Your task to perform on an android device: manage bookmarks in the chrome app Image 0: 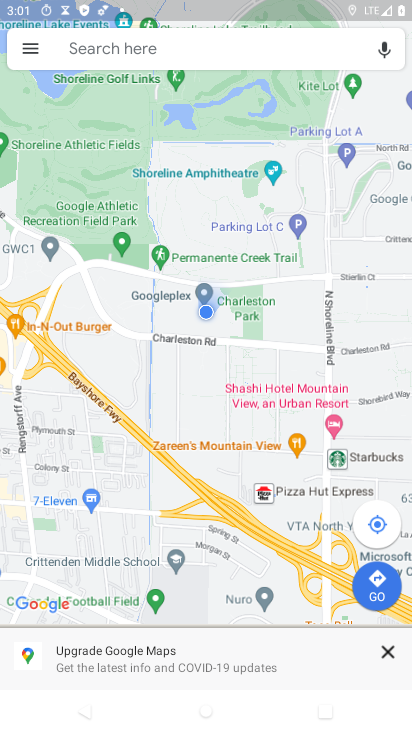
Step 0: press home button
Your task to perform on an android device: manage bookmarks in the chrome app Image 1: 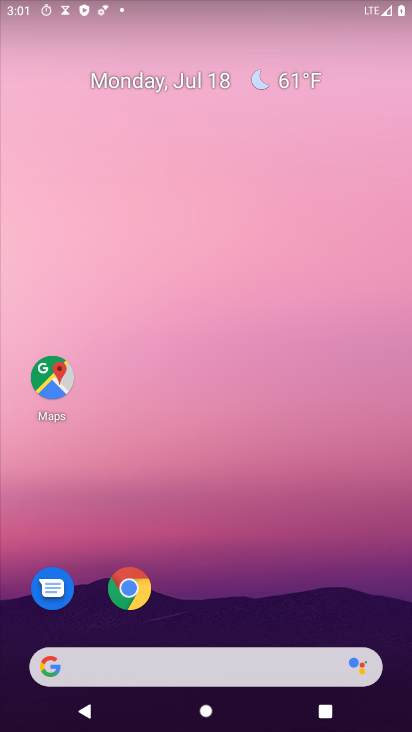
Step 1: drag from (306, 613) to (228, 70)
Your task to perform on an android device: manage bookmarks in the chrome app Image 2: 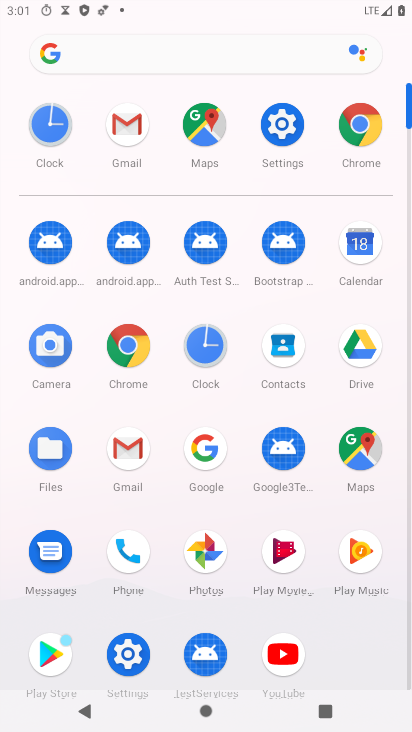
Step 2: click (355, 137)
Your task to perform on an android device: manage bookmarks in the chrome app Image 3: 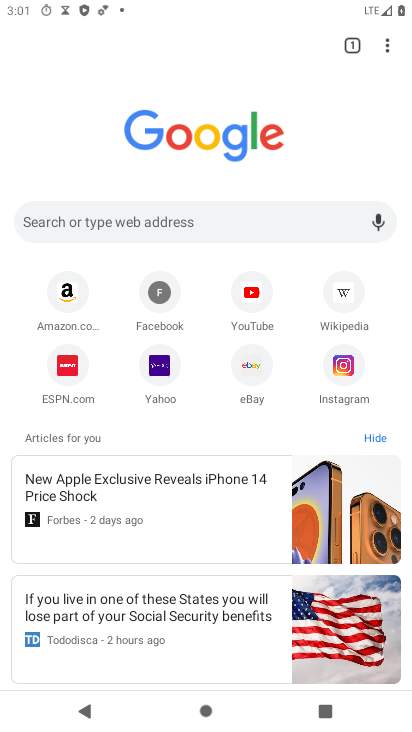
Step 3: drag from (382, 44) to (239, 178)
Your task to perform on an android device: manage bookmarks in the chrome app Image 4: 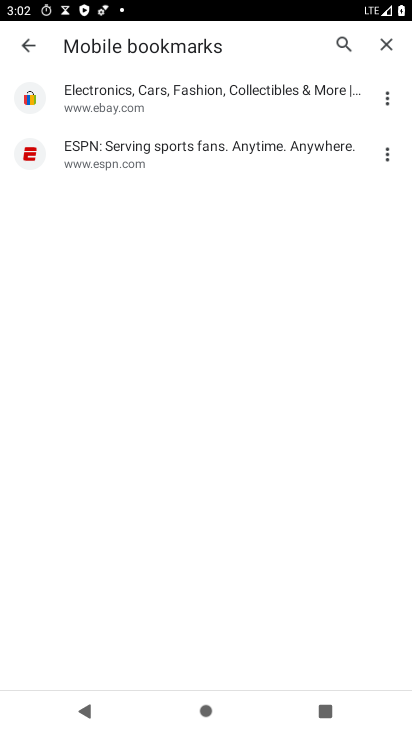
Step 4: click (388, 101)
Your task to perform on an android device: manage bookmarks in the chrome app Image 5: 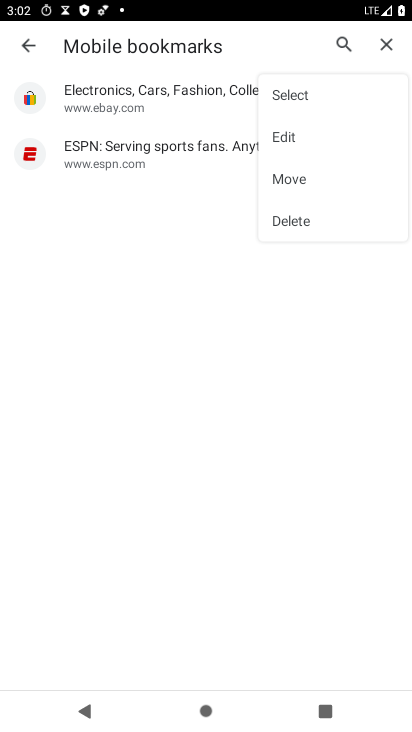
Step 5: click (285, 223)
Your task to perform on an android device: manage bookmarks in the chrome app Image 6: 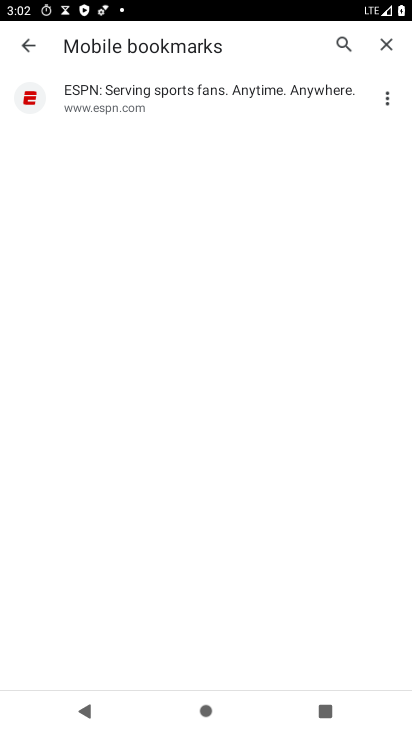
Step 6: task complete